Your task to perform on an android device: allow notifications from all sites in the chrome app Image 0: 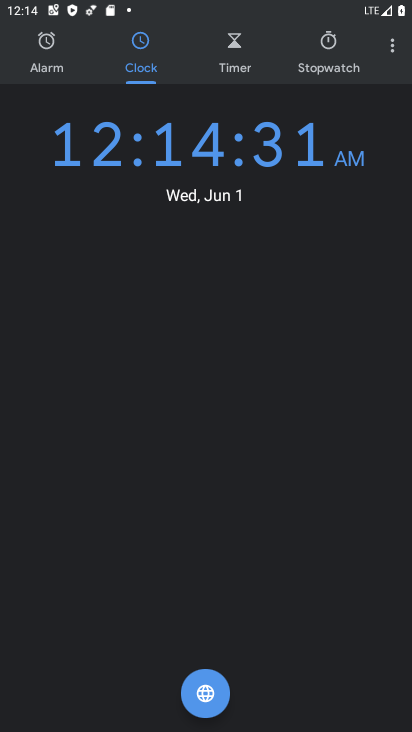
Step 0: press home button
Your task to perform on an android device: allow notifications from all sites in the chrome app Image 1: 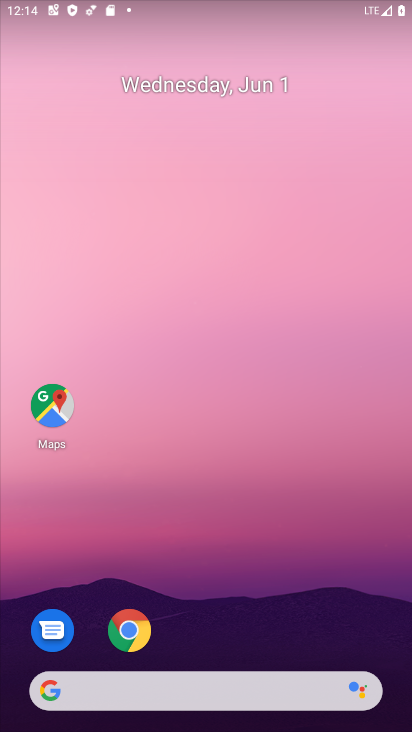
Step 1: click (136, 642)
Your task to perform on an android device: allow notifications from all sites in the chrome app Image 2: 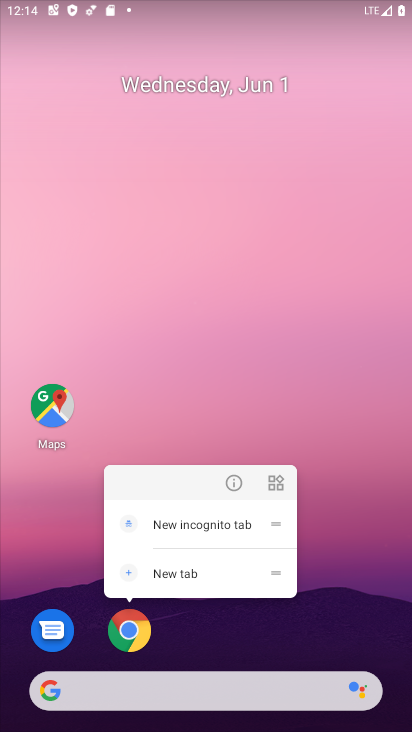
Step 2: click (122, 638)
Your task to perform on an android device: allow notifications from all sites in the chrome app Image 3: 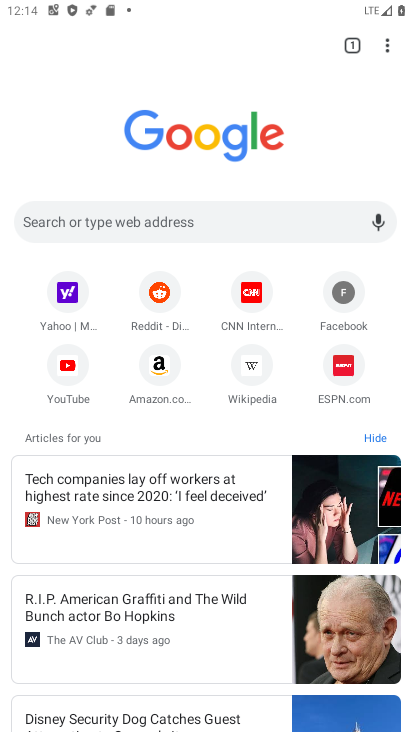
Step 3: drag from (387, 46) to (233, 379)
Your task to perform on an android device: allow notifications from all sites in the chrome app Image 4: 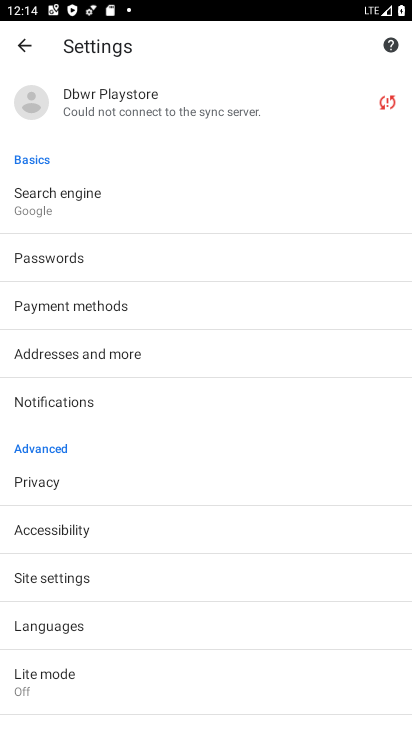
Step 4: click (87, 406)
Your task to perform on an android device: allow notifications from all sites in the chrome app Image 5: 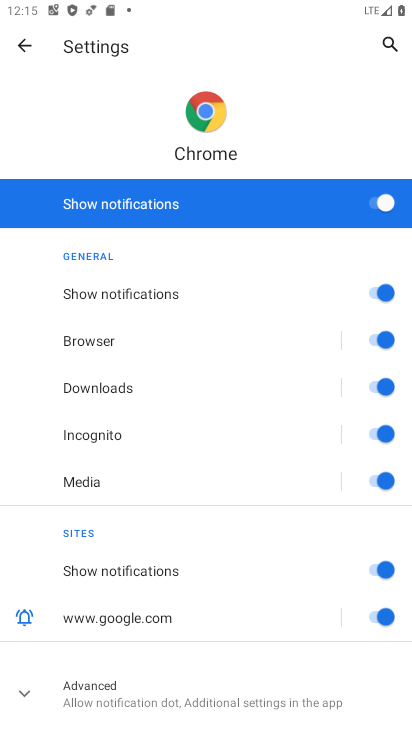
Step 5: click (27, 694)
Your task to perform on an android device: allow notifications from all sites in the chrome app Image 6: 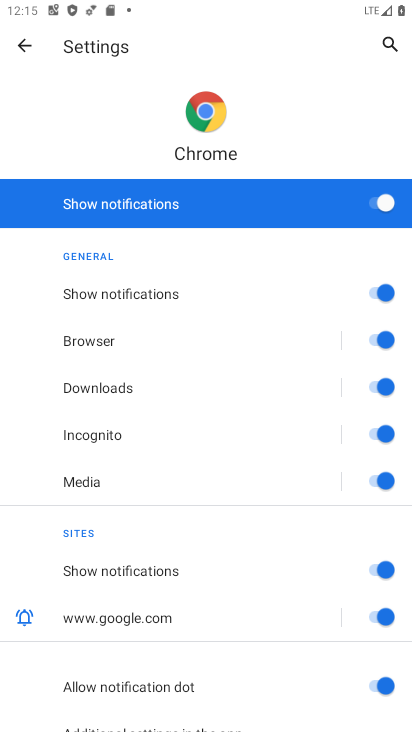
Step 6: task complete